Your task to perform on an android device: turn pop-ups on in chrome Image 0: 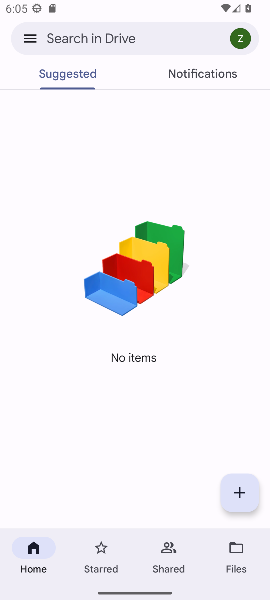
Step 0: press home button
Your task to perform on an android device: turn pop-ups on in chrome Image 1: 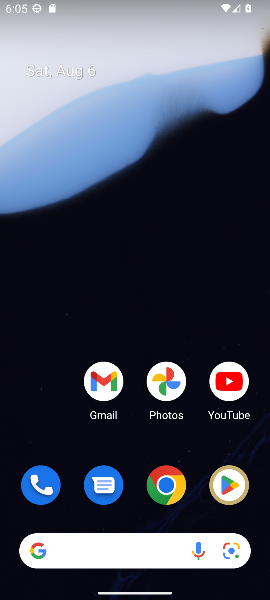
Step 1: click (167, 478)
Your task to perform on an android device: turn pop-ups on in chrome Image 2: 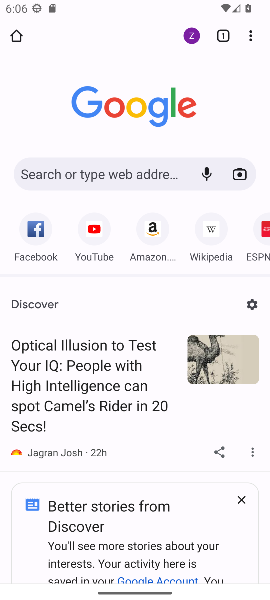
Step 2: click (250, 37)
Your task to perform on an android device: turn pop-ups on in chrome Image 3: 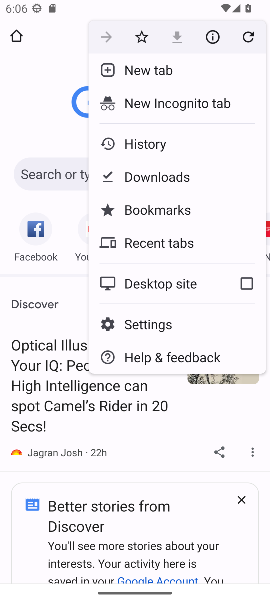
Step 3: click (147, 320)
Your task to perform on an android device: turn pop-ups on in chrome Image 4: 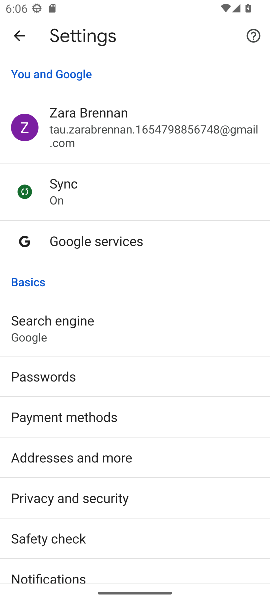
Step 4: drag from (157, 507) to (152, 256)
Your task to perform on an android device: turn pop-ups on in chrome Image 5: 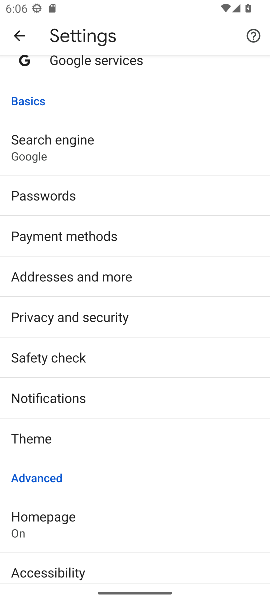
Step 5: drag from (131, 522) to (101, 189)
Your task to perform on an android device: turn pop-ups on in chrome Image 6: 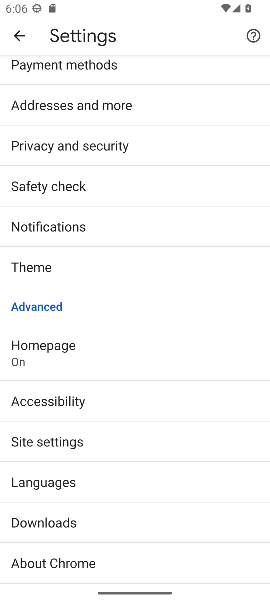
Step 6: click (56, 439)
Your task to perform on an android device: turn pop-ups on in chrome Image 7: 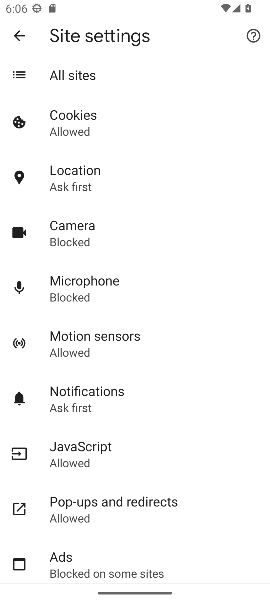
Step 7: click (84, 504)
Your task to perform on an android device: turn pop-ups on in chrome Image 8: 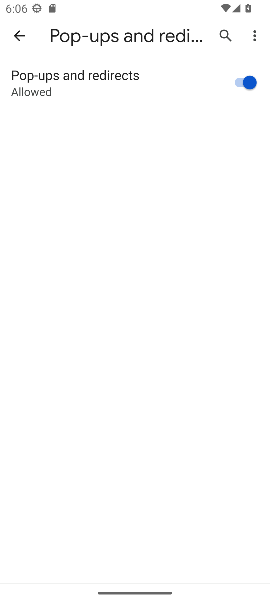
Step 8: task complete